Your task to perform on an android device: remove spam from my inbox in the gmail app Image 0: 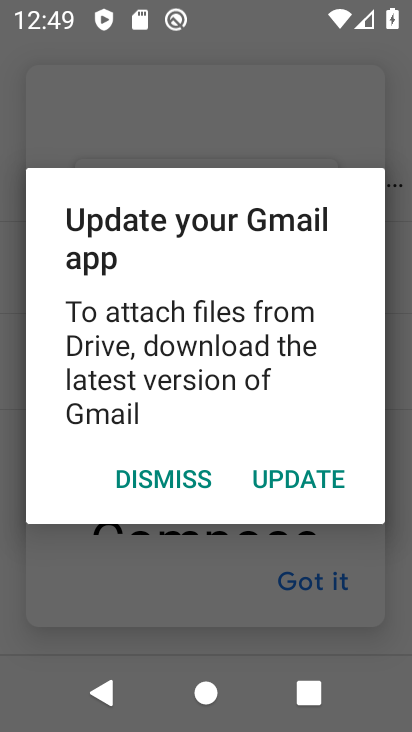
Step 0: click (324, 473)
Your task to perform on an android device: remove spam from my inbox in the gmail app Image 1: 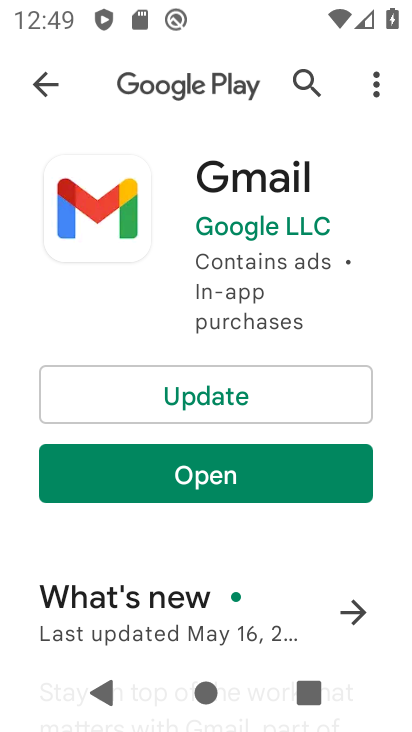
Step 1: click (178, 408)
Your task to perform on an android device: remove spam from my inbox in the gmail app Image 2: 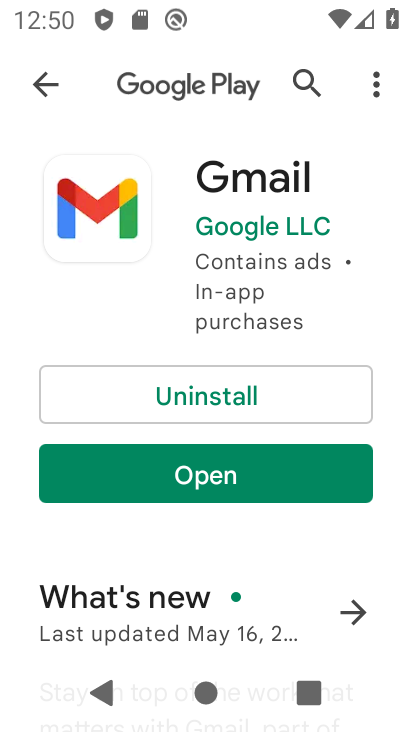
Step 2: click (228, 471)
Your task to perform on an android device: remove spam from my inbox in the gmail app Image 3: 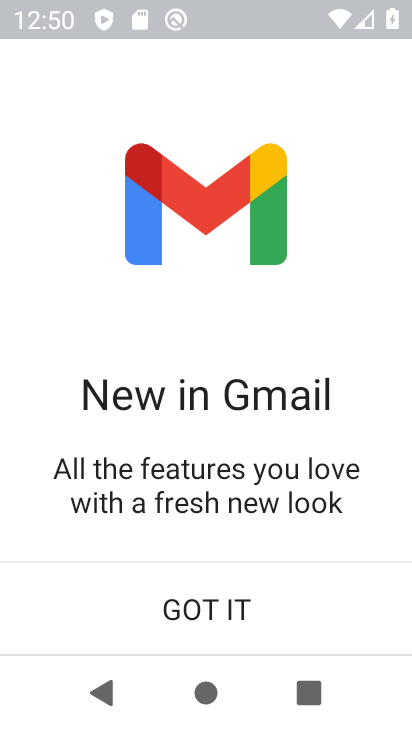
Step 3: task complete